Your task to perform on an android device: turn on translation in the chrome app Image 0: 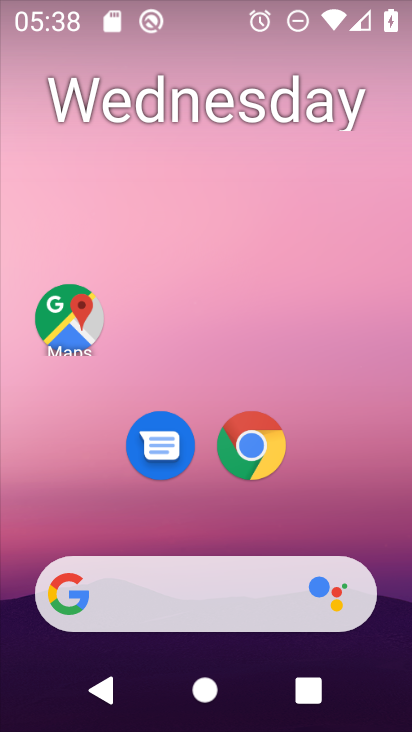
Step 0: click (241, 449)
Your task to perform on an android device: turn on translation in the chrome app Image 1: 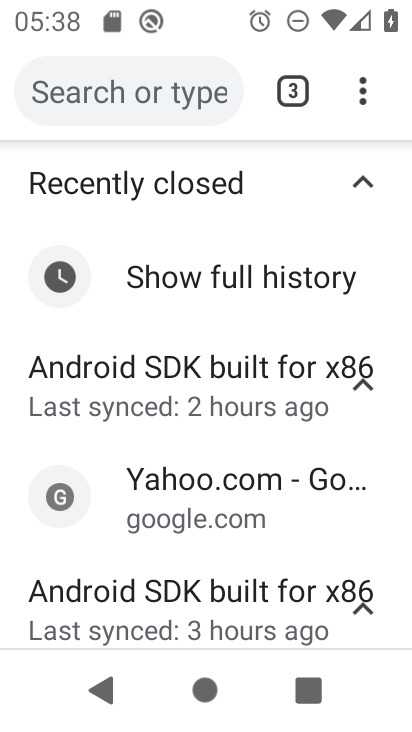
Step 1: click (375, 87)
Your task to perform on an android device: turn on translation in the chrome app Image 2: 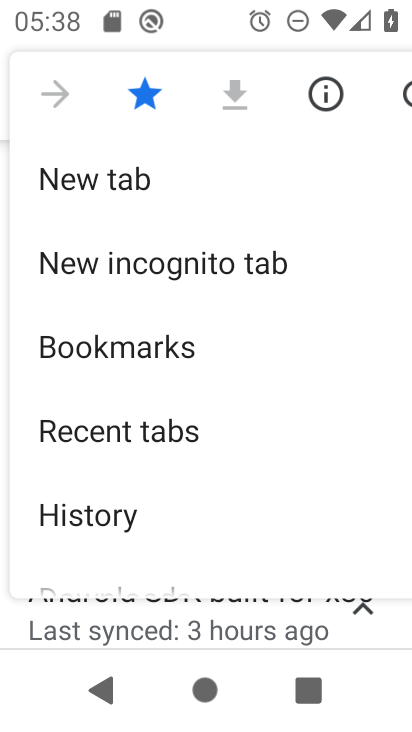
Step 2: drag from (107, 562) to (191, 74)
Your task to perform on an android device: turn on translation in the chrome app Image 3: 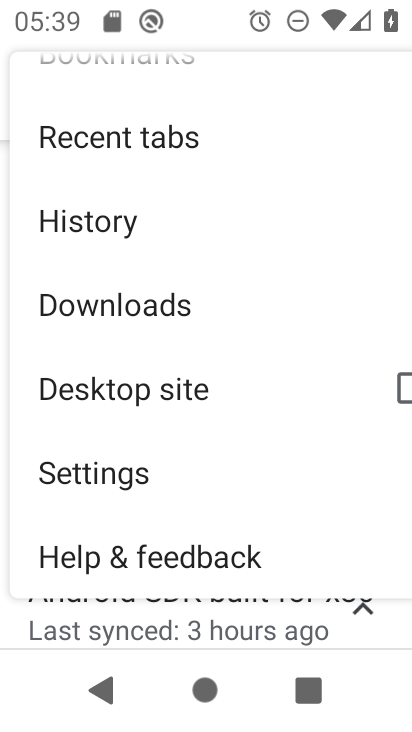
Step 3: drag from (96, 502) to (201, 6)
Your task to perform on an android device: turn on translation in the chrome app Image 4: 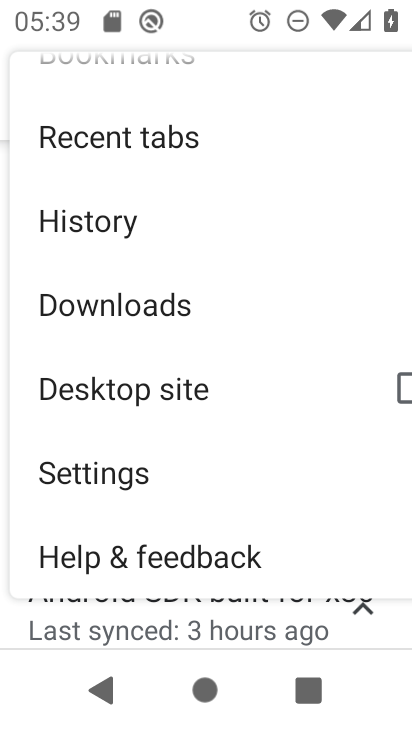
Step 4: click (144, 479)
Your task to perform on an android device: turn on translation in the chrome app Image 5: 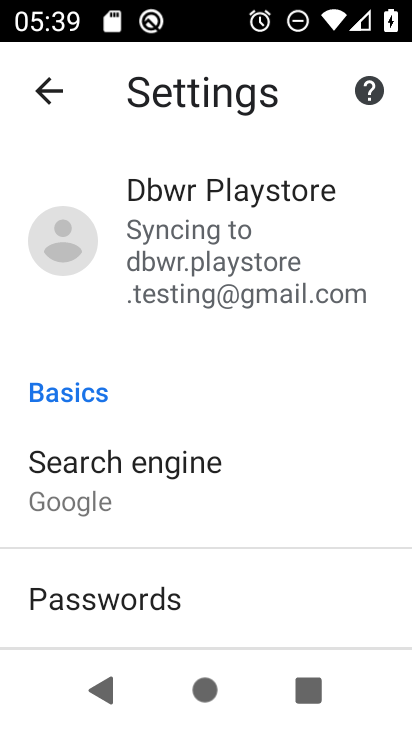
Step 5: drag from (184, 594) to (213, 118)
Your task to perform on an android device: turn on translation in the chrome app Image 6: 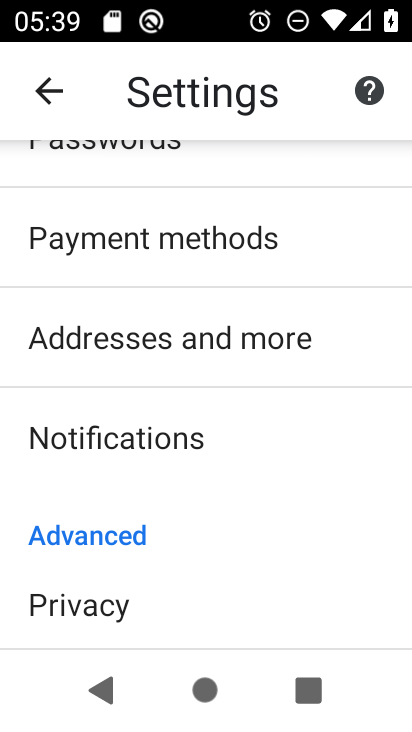
Step 6: drag from (98, 556) to (153, 154)
Your task to perform on an android device: turn on translation in the chrome app Image 7: 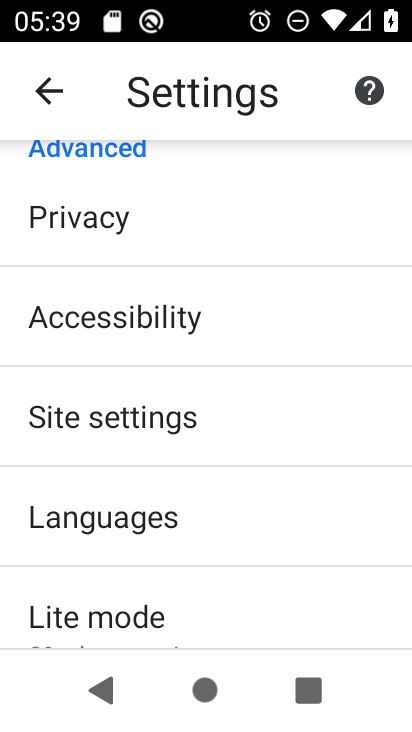
Step 7: click (113, 543)
Your task to perform on an android device: turn on translation in the chrome app Image 8: 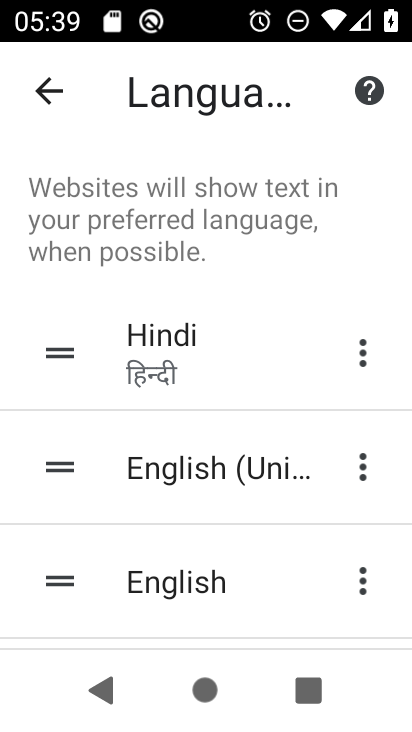
Step 8: task complete